Your task to perform on an android device: find photos in the google photos app Image 0: 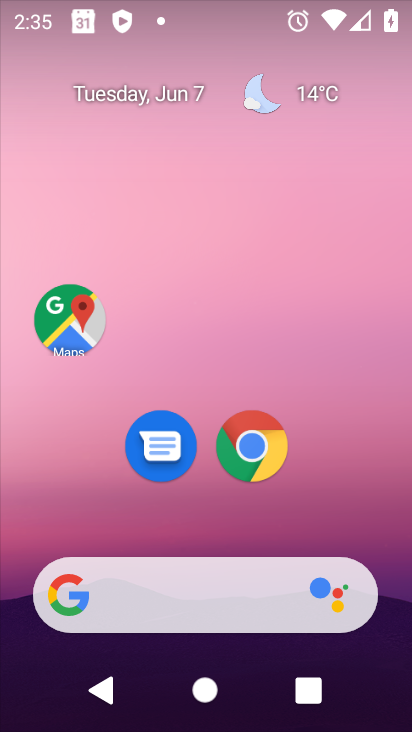
Step 0: drag from (393, 590) to (377, 162)
Your task to perform on an android device: find photos in the google photos app Image 1: 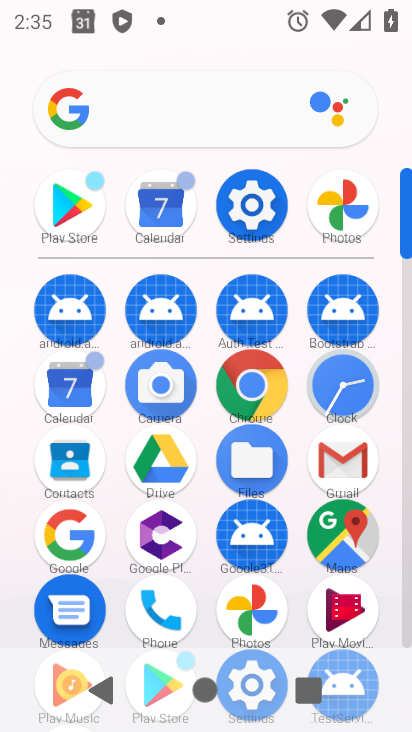
Step 1: click (409, 626)
Your task to perform on an android device: find photos in the google photos app Image 2: 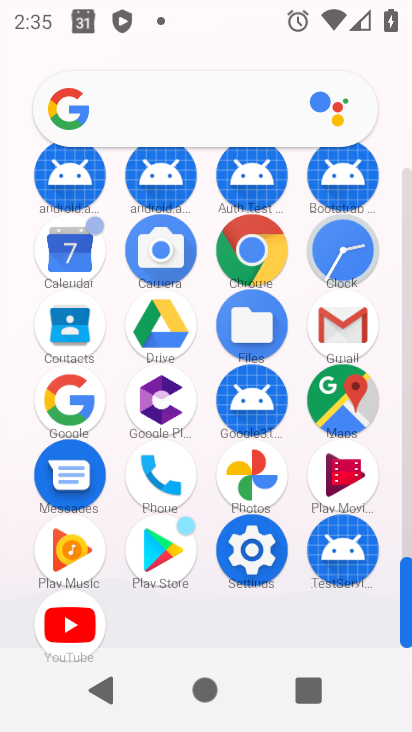
Step 2: click (250, 468)
Your task to perform on an android device: find photos in the google photos app Image 3: 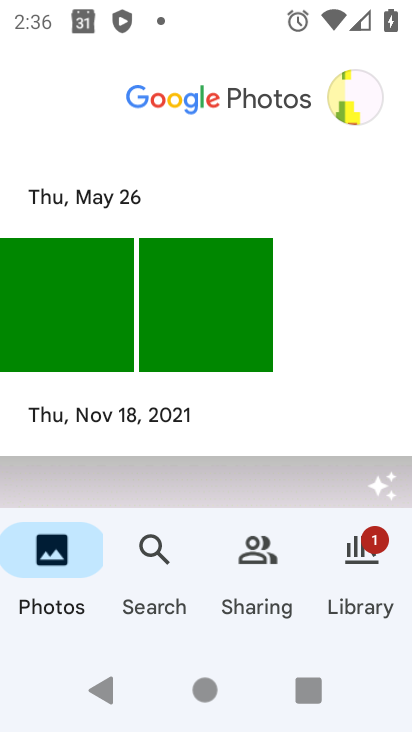
Step 3: task complete